Your task to perform on an android device: turn smart compose on in the gmail app Image 0: 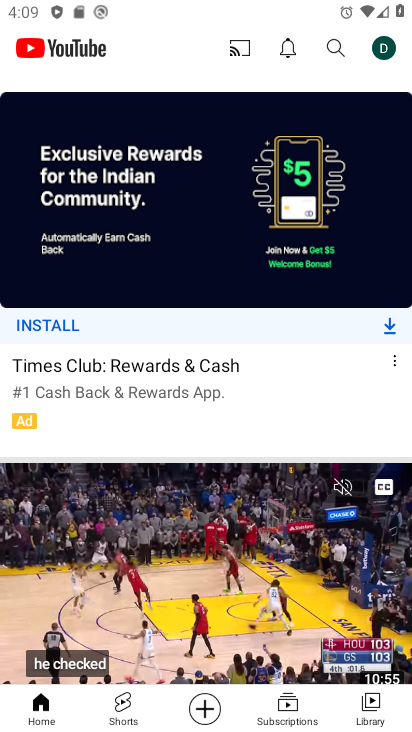
Step 0: press home button
Your task to perform on an android device: turn smart compose on in the gmail app Image 1: 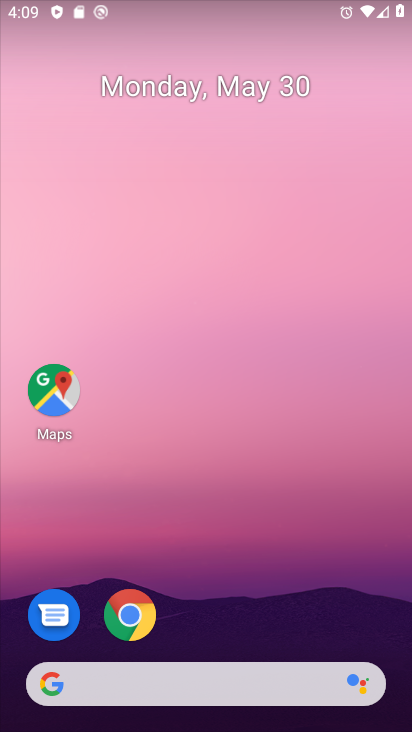
Step 1: drag from (216, 584) to (249, 17)
Your task to perform on an android device: turn smart compose on in the gmail app Image 2: 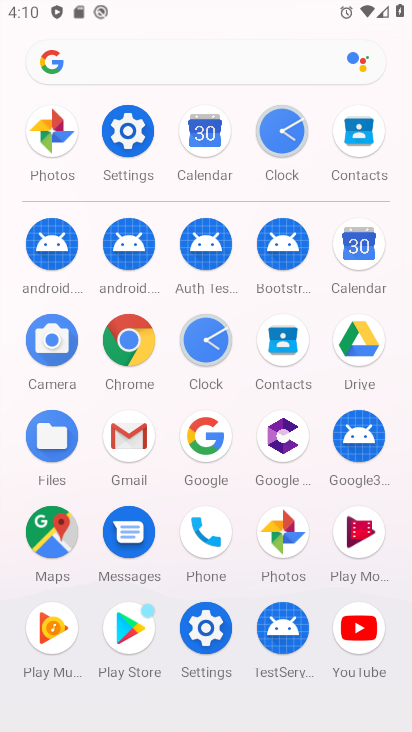
Step 2: click (133, 429)
Your task to perform on an android device: turn smart compose on in the gmail app Image 3: 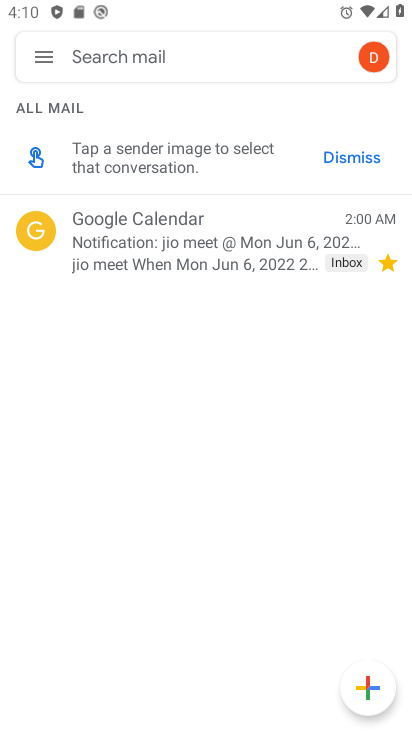
Step 3: click (46, 49)
Your task to perform on an android device: turn smart compose on in the gmail app Image 4: 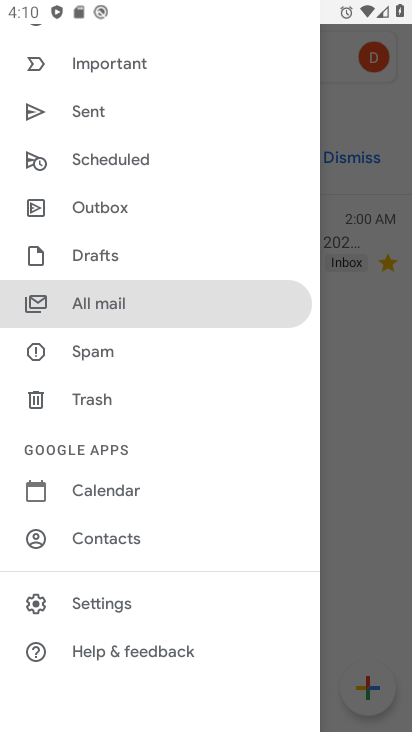
Step 4: click (117, 603)
Your task to perform on an android device: turn smart compose on in the gmail app Image 5: 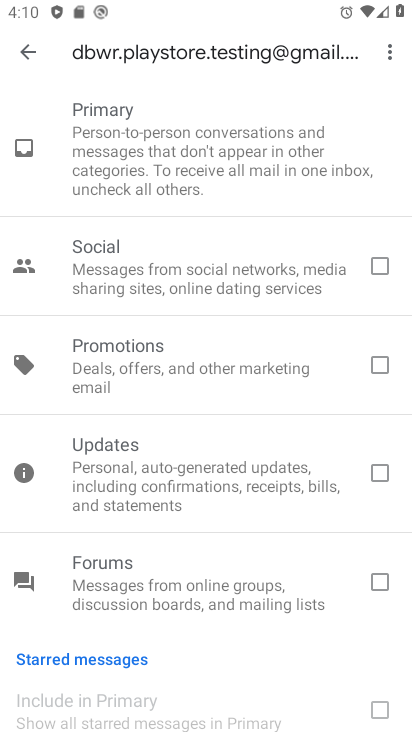
Step 5: drag from (243, 220) to (261, 493)
Your task to perform on an android device: turn smart compose on in the gmail app Image 6: 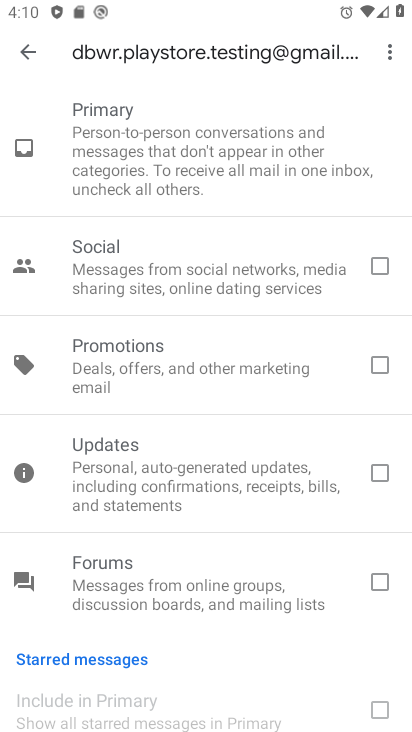
Step 6: click (30, 41)
Your task to perform on an android device: turn smart compose on in the gmail app Image 7: 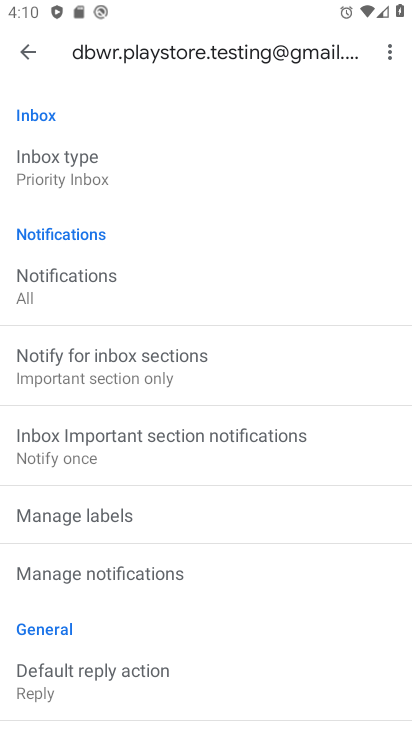
Step 7: task complete